Your task to perform on an android device: change the clock display to digital Image 0: 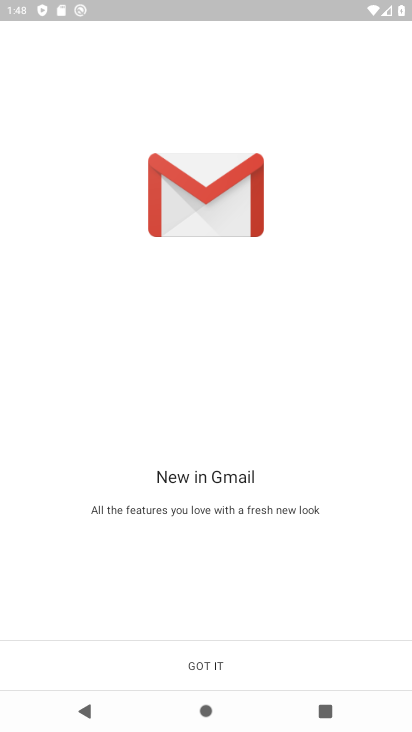
Step 0: press home button
Your task to perform on an android device: change the clock display to digital Image 1: 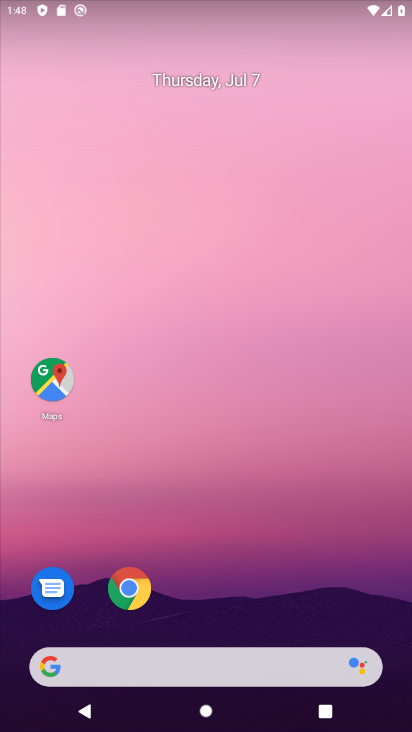
Step 1: drag from (378, 629) to (353, 92)
Your task to perform on an android device: change the clock display to digital Image 2: 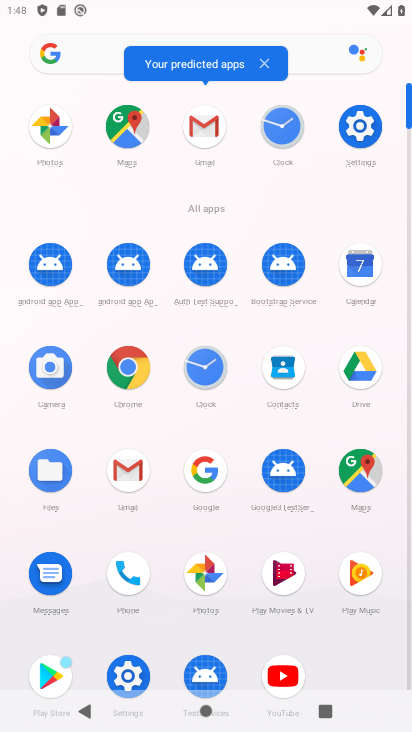
Step 2: click (206, 367)
Your task to perform on an android device: change the clock display to digital Image 3: 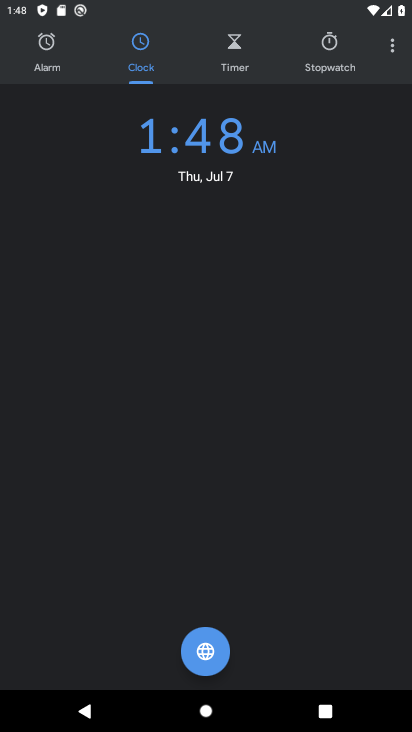
Step 3: click (392, 52)
Your task to perform on an android device: change the clock display to digital Image 4: 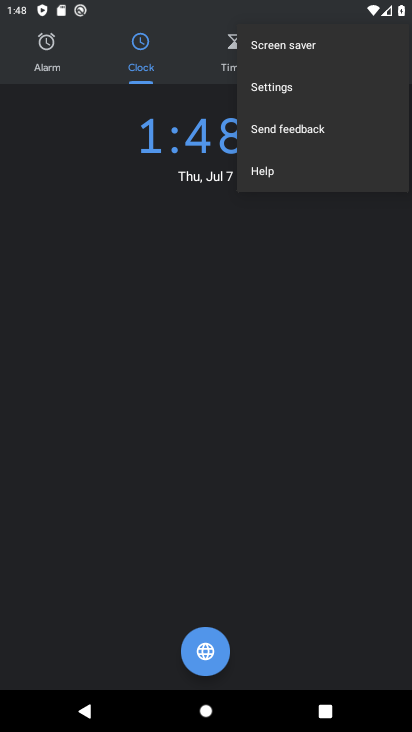
Step 4: click (270, 92)
Your task to perform on an android device: change the clock display to digital Image 5: 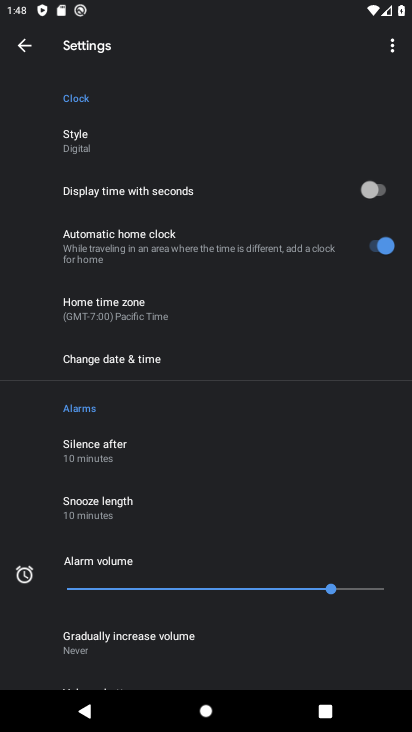
Step 5: task complete